Your task to perform on an android device: see tabs open on other devices in the chrome app Image 0: 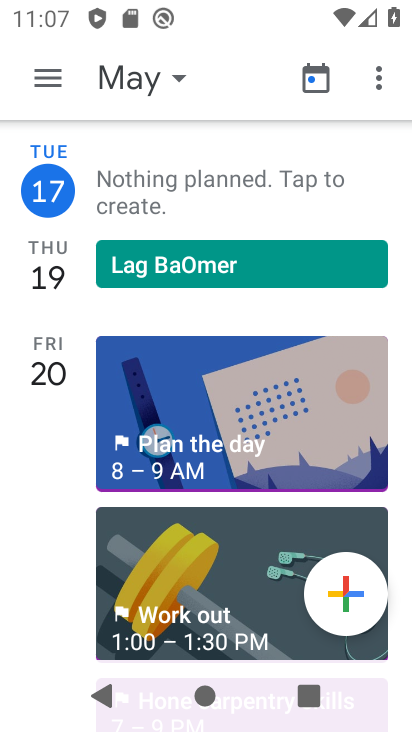
Step 0: press home button
Your task to perform on an android device: see tabs open on other devices in the chrome app Image 1: 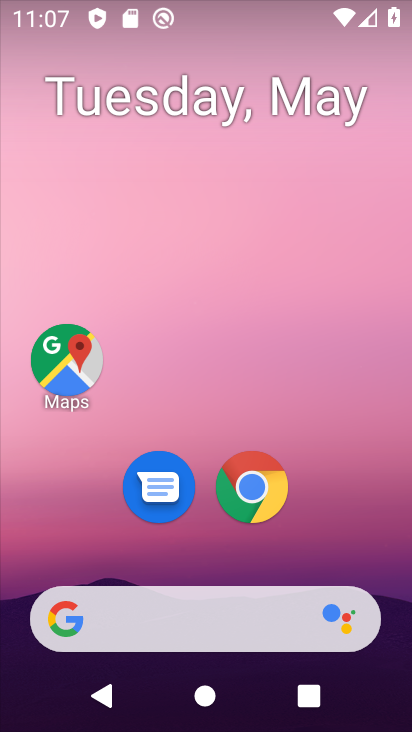
Step 1: click (263, 497)
Your task to perform on an android device: see tabs open on other devices in the chrome app Image 2: 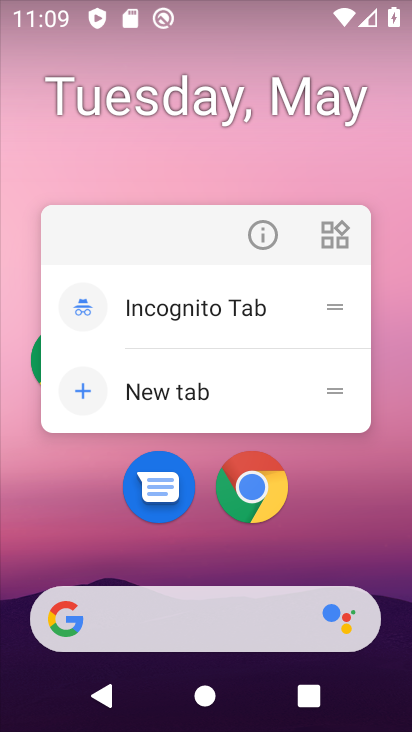
Step 2: click (337, 554)
Your task to perform on an android device: see tabs open on other devices in the chrome app Image 3: 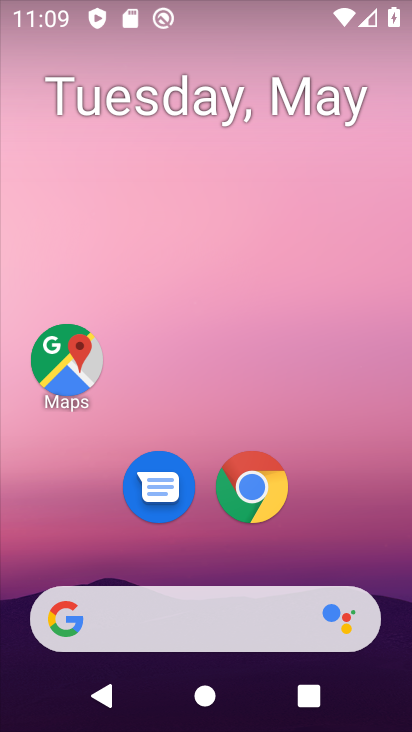
Step 3: click (240, 491)
Your task to perform on an android device: see tabs open on other devices in the chrome app Image 4: 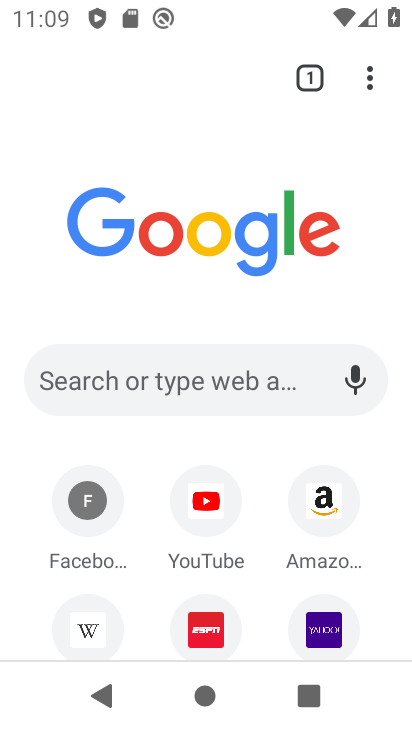
Step 4: click (370, 84)
Your task to perform on an android device: see tabs open on other devices in the chrome app Image 5: 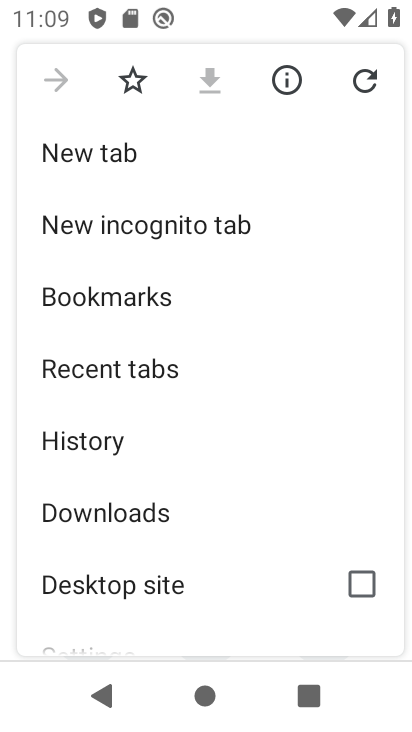
Step 5: click (106, 444)
Your task to perform on an android device: see tabs open on other devices in the chrome app Image 6: 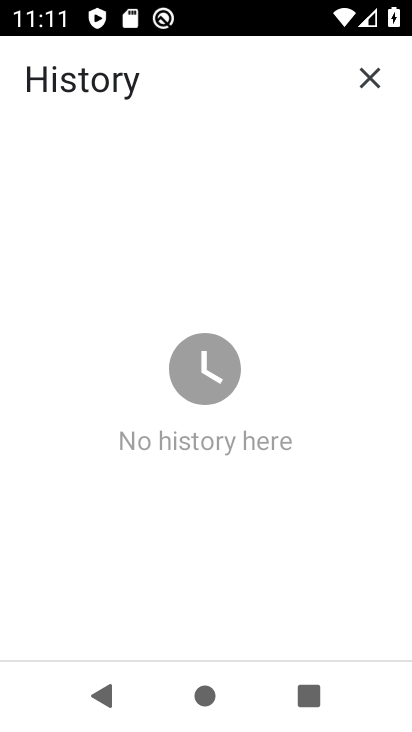
Step 6: task complete